Your task to perform on an android device: change the clock display to show seconds Image 0: 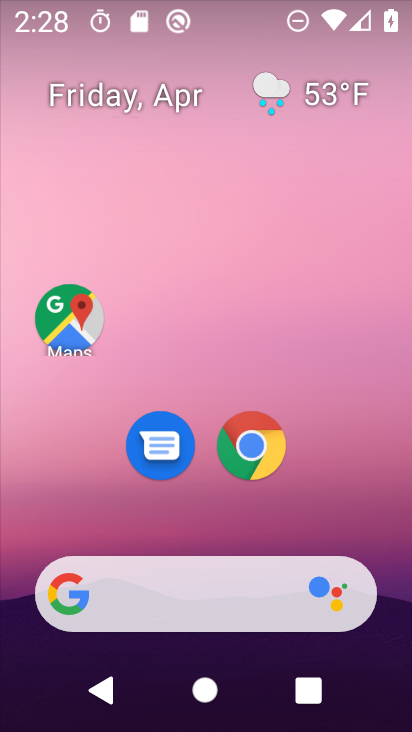
Step 0: drag from (377, 513) to (370, 136)
Your task to perform on an android device: change the clock display to show seconds Image 1: 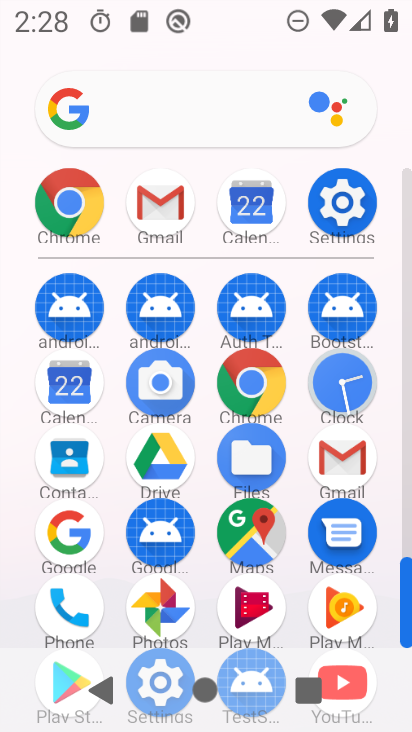
Step 1: click (355, 396)
Your task to perform on an android device: change the clock display to show seconds Image 2: 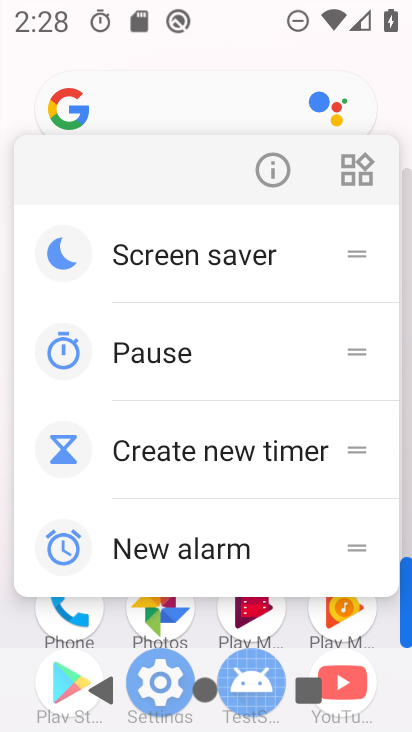
Step 2: click (406, 357)
Your task to perform on an android device: change the clock display to show seconds Image 3: 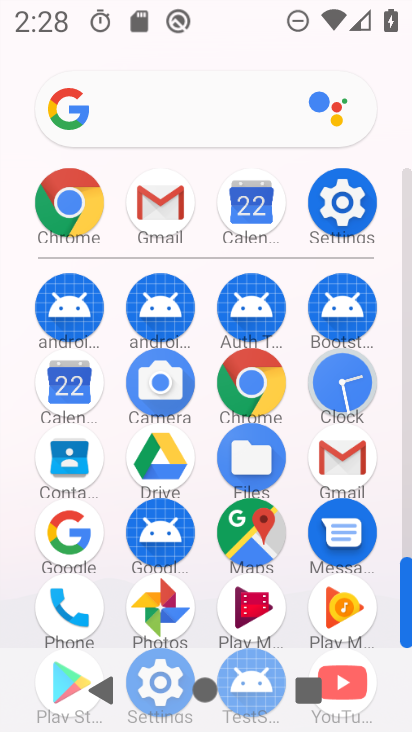
Step 3: click (366, 377)
Your task to perform on an android device: change the clock display to show seconds Image 4: 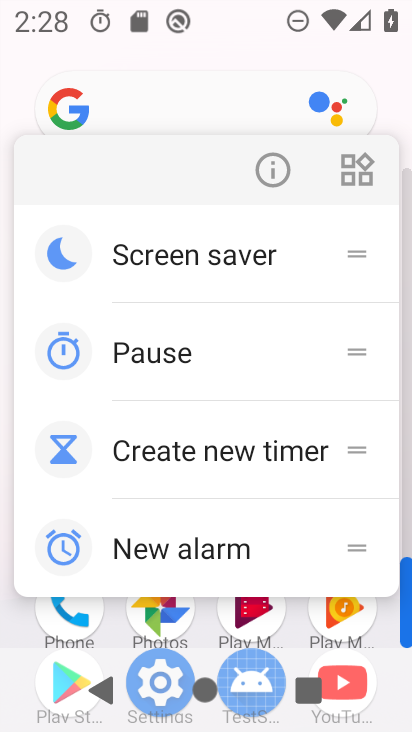
Step 4: click (405, 391)
Your task to perform on an android device: change the clock display to show seconds Image 5: 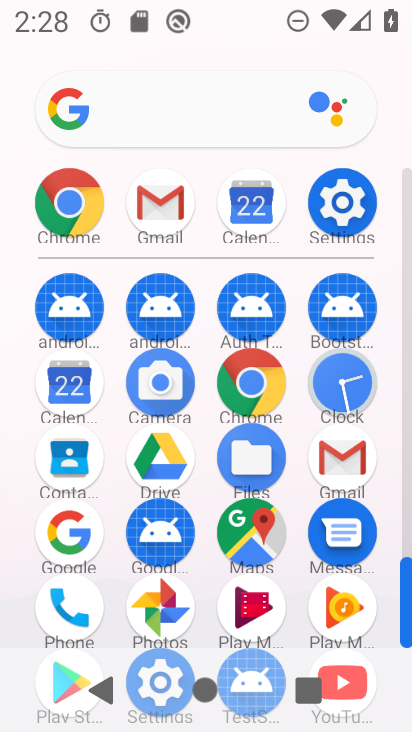
Step 5: click (337, 396)
Your task to perform on an android device: change the clock display to show seconds Image 6: 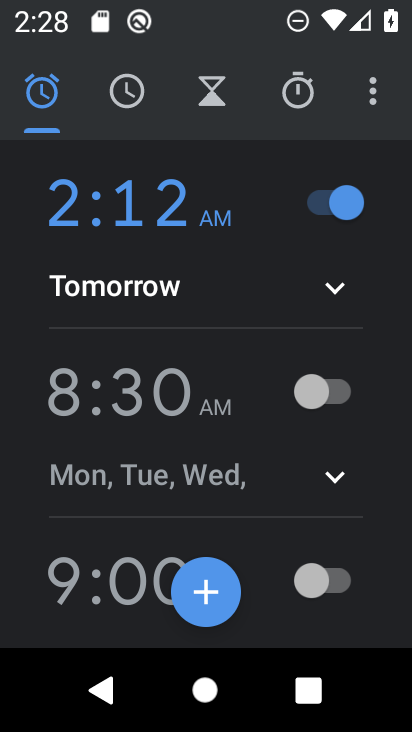
Step 6: click (374, 97)
Your task to perform on an android device: change the clock display to show seconds Image 7: 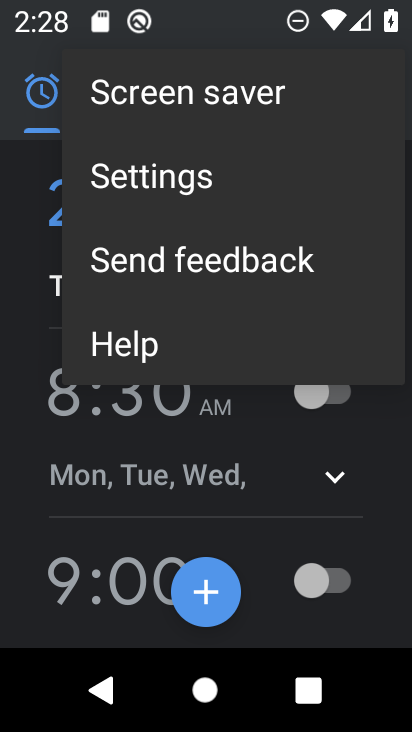
Step 7: click (250, 167)
Your task to perform on an android device: change the clock display to show seconds Image 8: 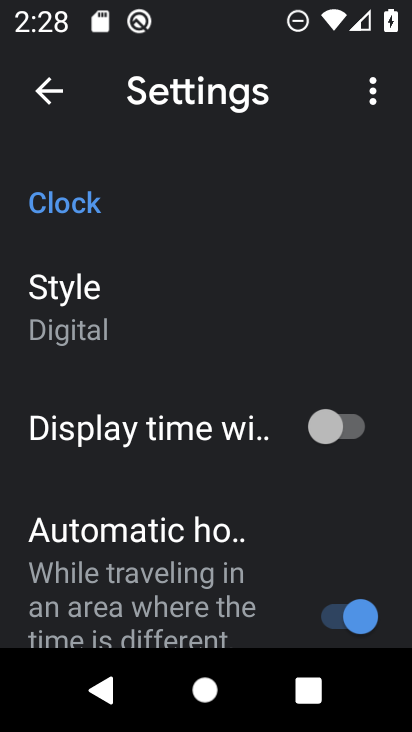
Step 8: drag from (281, 521) to (277, 370)
Your task to perform on an android device: change the clock display to show seconds Image 9: 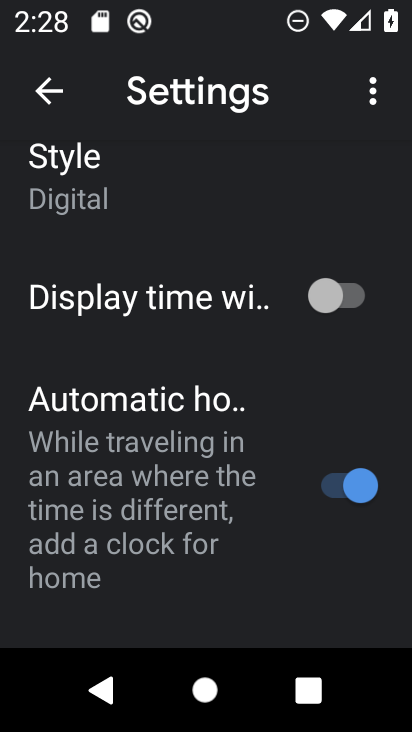
Step 9: drag from (276, 547) to (282, 414)
Your task to perform on an android device: change the clock display to show seconds Image 10: 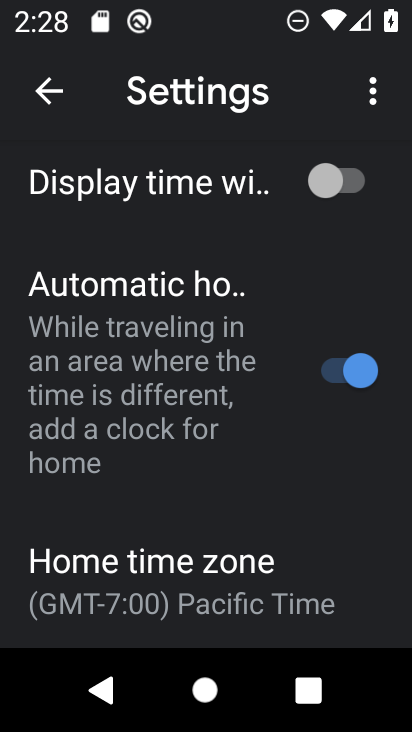
Step 10: drag from (286, 547) to (281, 406)
Your task to perform on an android device: change the clock display to show seconds Image 11: 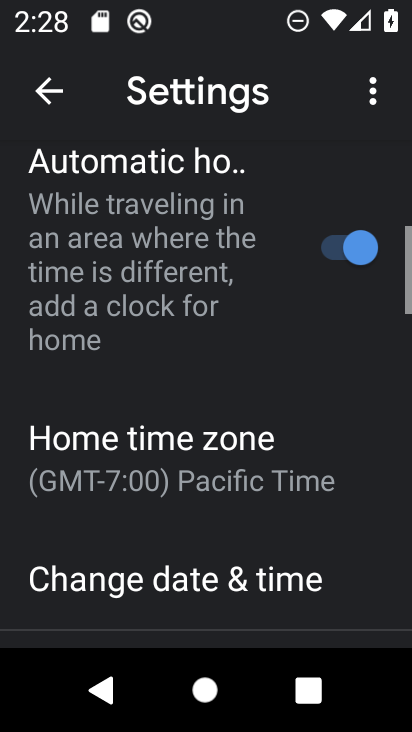
Step 11: drag from (285, 547) to (296, 358)
Your task to perform on an android device: change the clock display to show seconds Image 12: 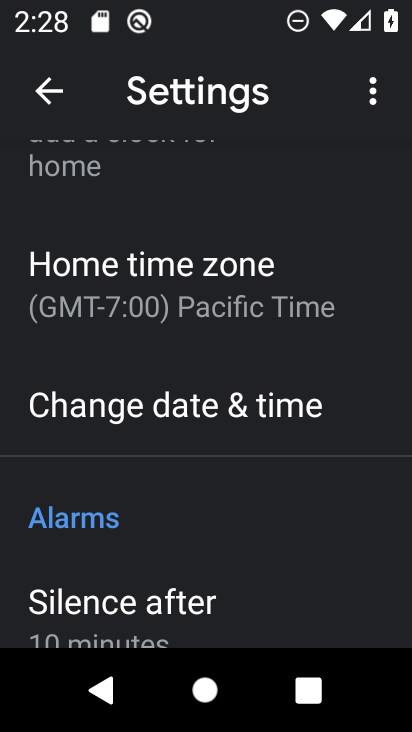
Step 12: drag from (294, 471) to (306, 303)
Your task to perform on an android device: change the clock display to show seconds Image 13: 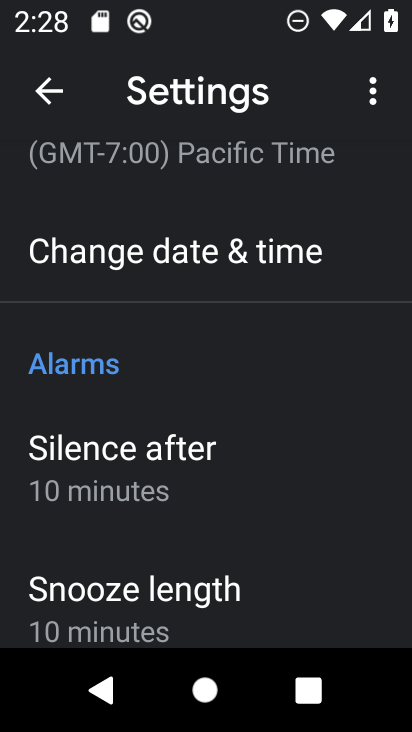
Step 13: drag from (318, 527) to (312, 377)
Your task to perform on an android device: change the clock display to show seconds Image 14: 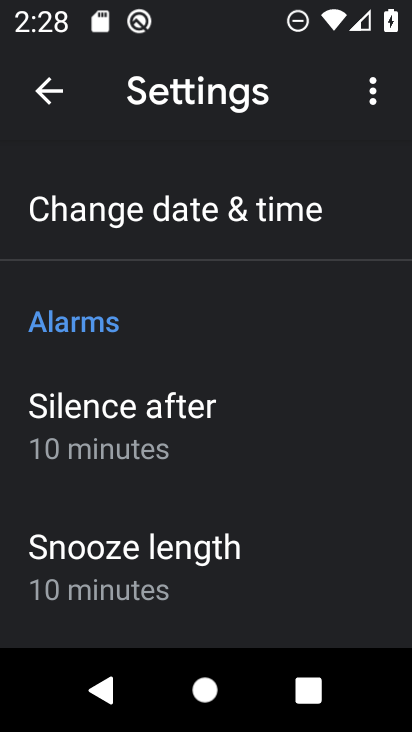
Step 14: drag from (316, 305) to (324, 461)
Your task to perform on an android device: change the clock display to show seconds Image 15: 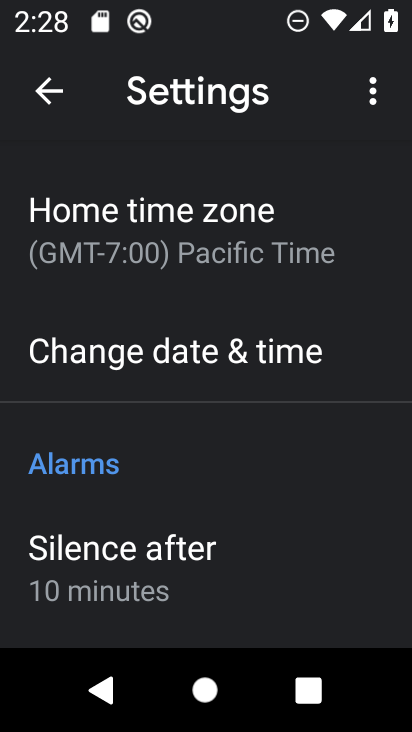
Step 15: drag from (353, 293) to (354, 415)
Your task to perform on an android device: change the clock display to show seconds Image 16: 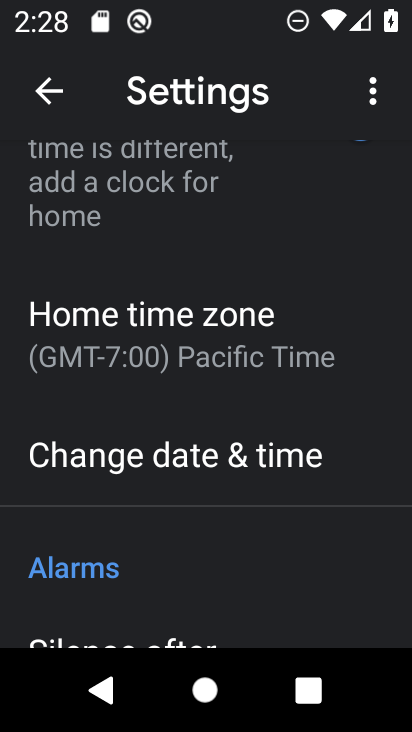
Step 16: drag from (344, 310) to (347, 413)
Your task to perform on an android device: change the clock display to show seconds Image 17: 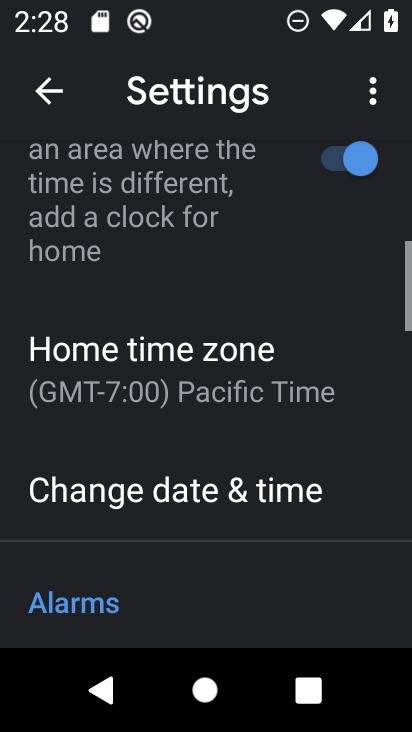
Step 17: drag from (290, 211) to (296, 392)
Your task to perform on an android device: change the clock display to show seconds Image 18: 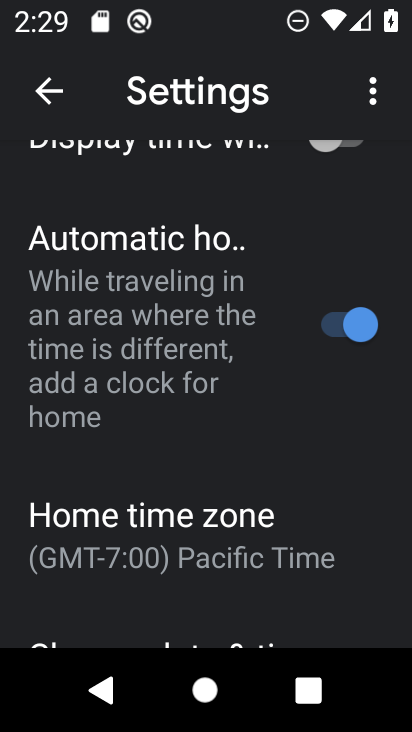
Step 18: drag from (286, 241) to (269, 406)
Your task to perform on an android device: change the clock display to show seconds Image 19: 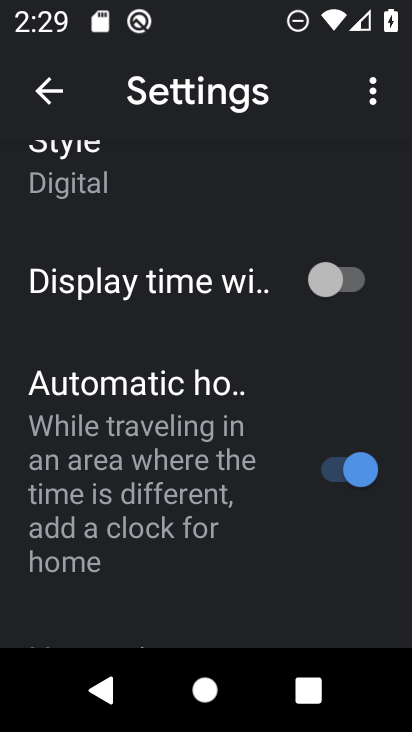
Step 19: drag from (269, 255) to (252, 416)
Your task to perform on an android device: change the clock display to show seconds Image 20: 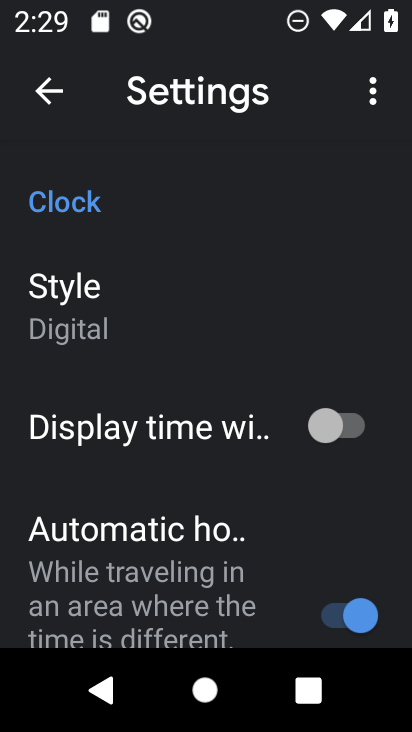
Step 20: click (314, 428)
Your task to perform on an android device: change the clock display to show seconds Image 21: 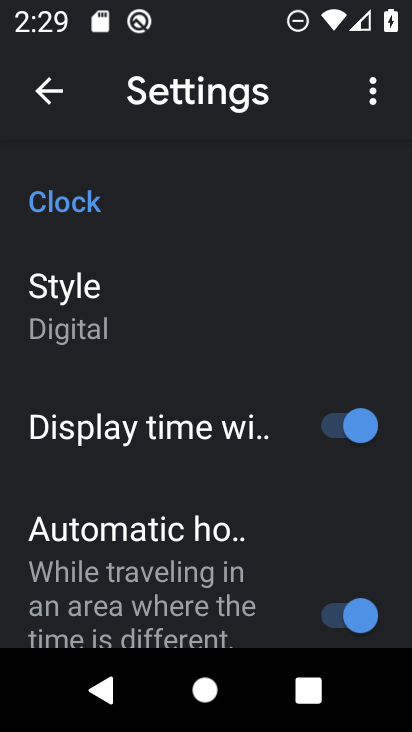
Step 21: task complete